Your task to perform on an android device: turn notification dots on Image 0: 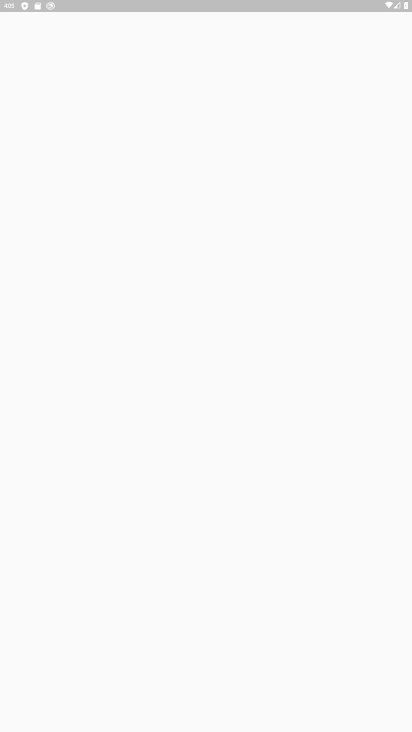
Step 0: press home button
Your task to perform on an android device: turn notification dots on Image 1: 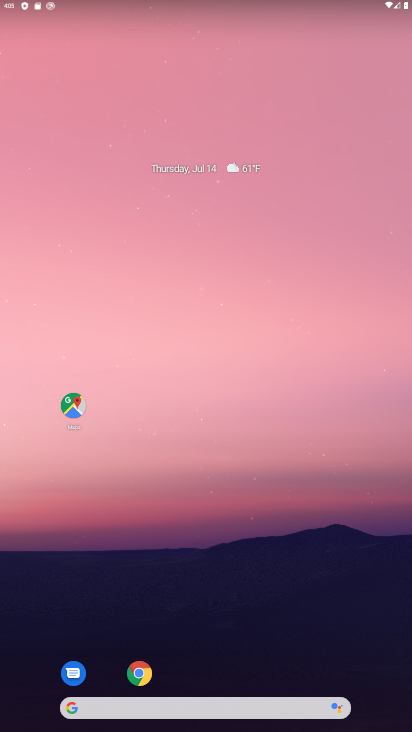
Step 1: drag from (227, 673) to (163, 55)
Your task to perform on an android device: turn notification dots on Image 2: 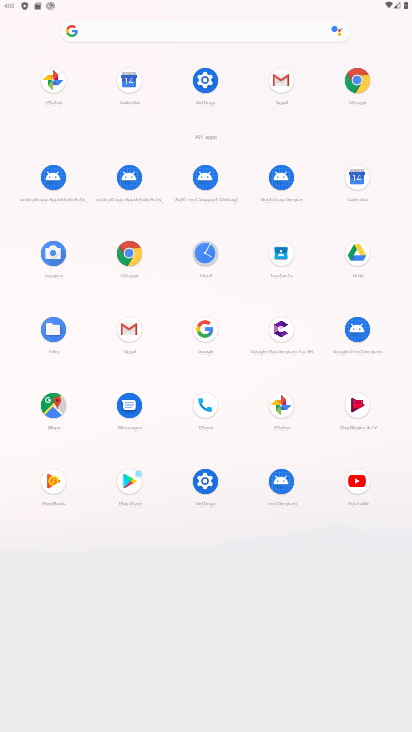
Step 2: click (201, 482)
Your task to perform on an android device: turn notification dots on Image 3: 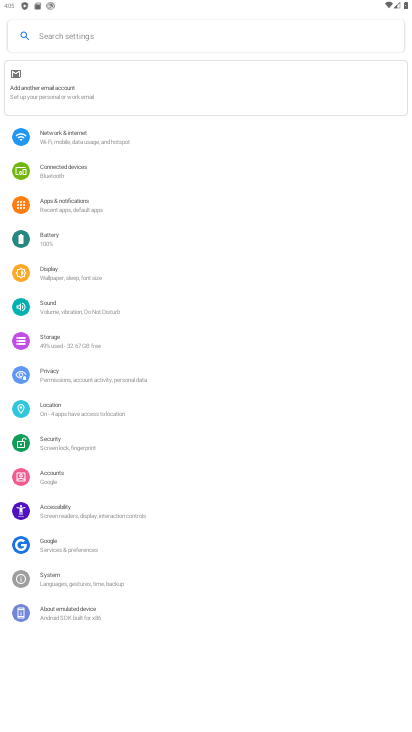
Step 3: click (65, 209)
Your task to perform on an android device: turn notification dots on Image 4: 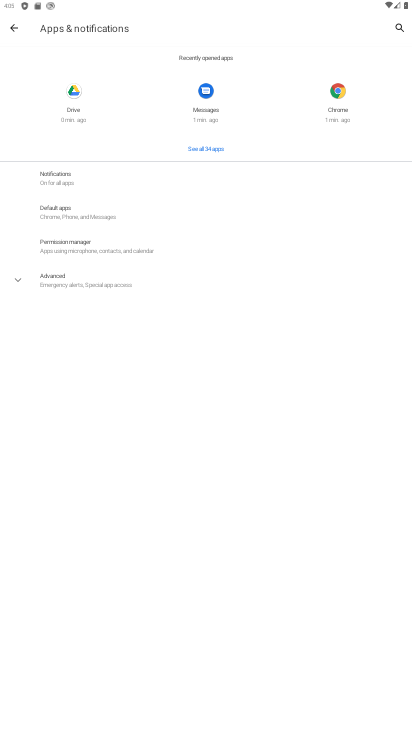
Step 4: click (60, 184)
Your task to perform on an android device: turn notification dots on Image 5: 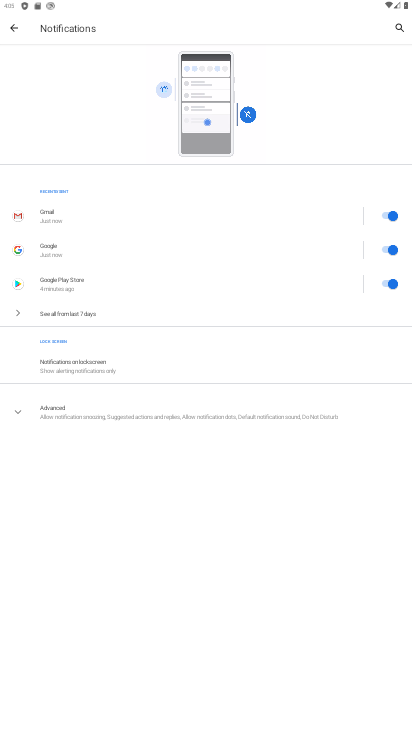
Step 5: click (74, 406)
Your task to perform on an android device: turn notification dots on Image 6: 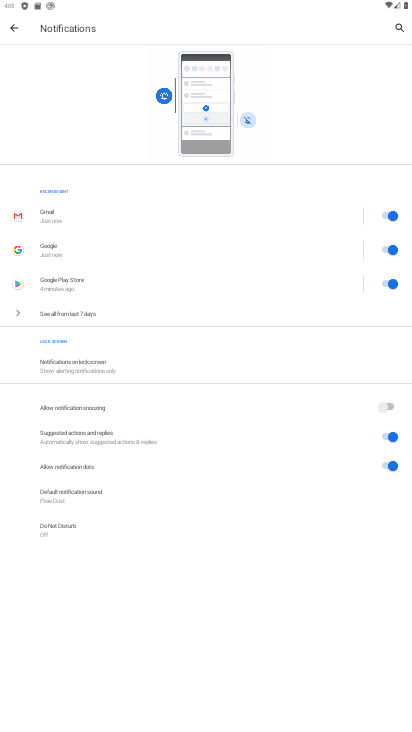
Step 6: click (389, 467)
Your task to perform on an android device: turn notification dots on Image 7: 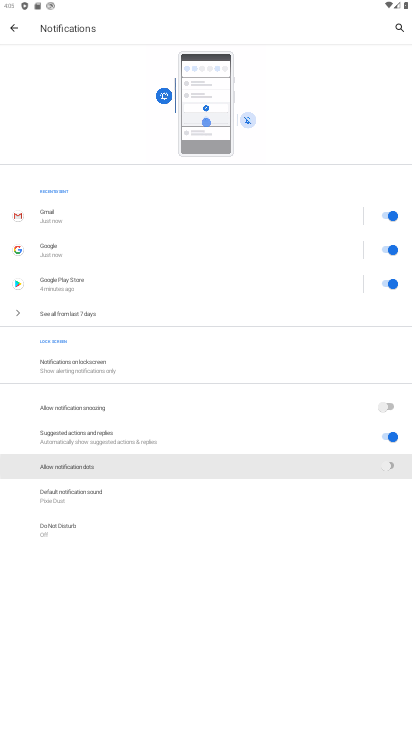
Step 7: click (388, 466)
Your task to perform on an android device: turn notification dots on Image 8: 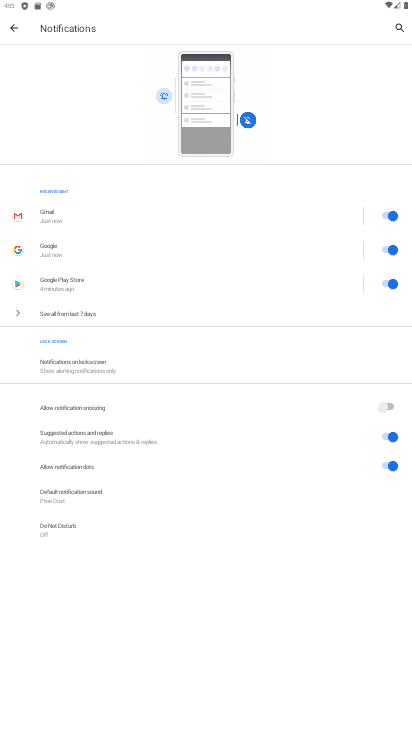
Step 8: task complete